Your task to perform on an android device: set an alarm Image 0: 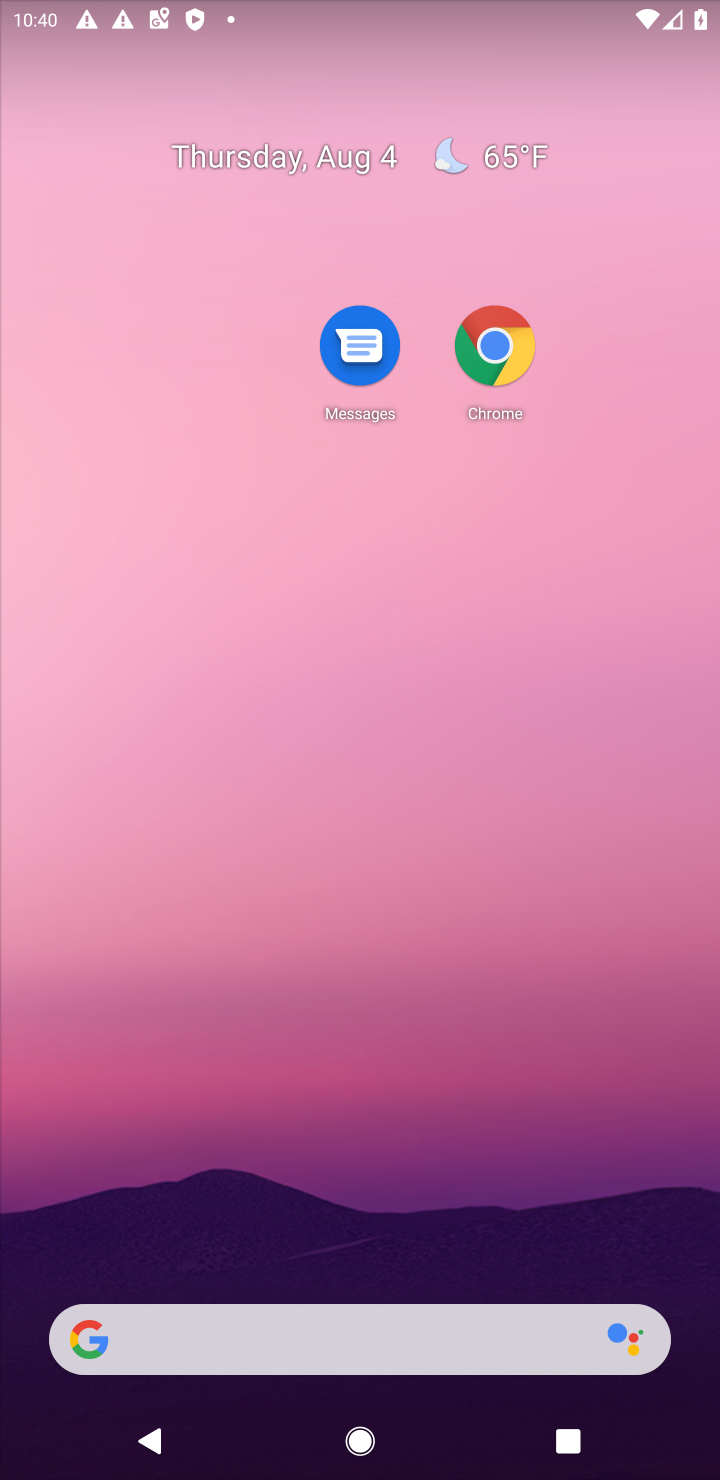
Step 0: drag from (241, 1078) to (458, 191)
Your task to perform on an android device: set an alarm Image 1: 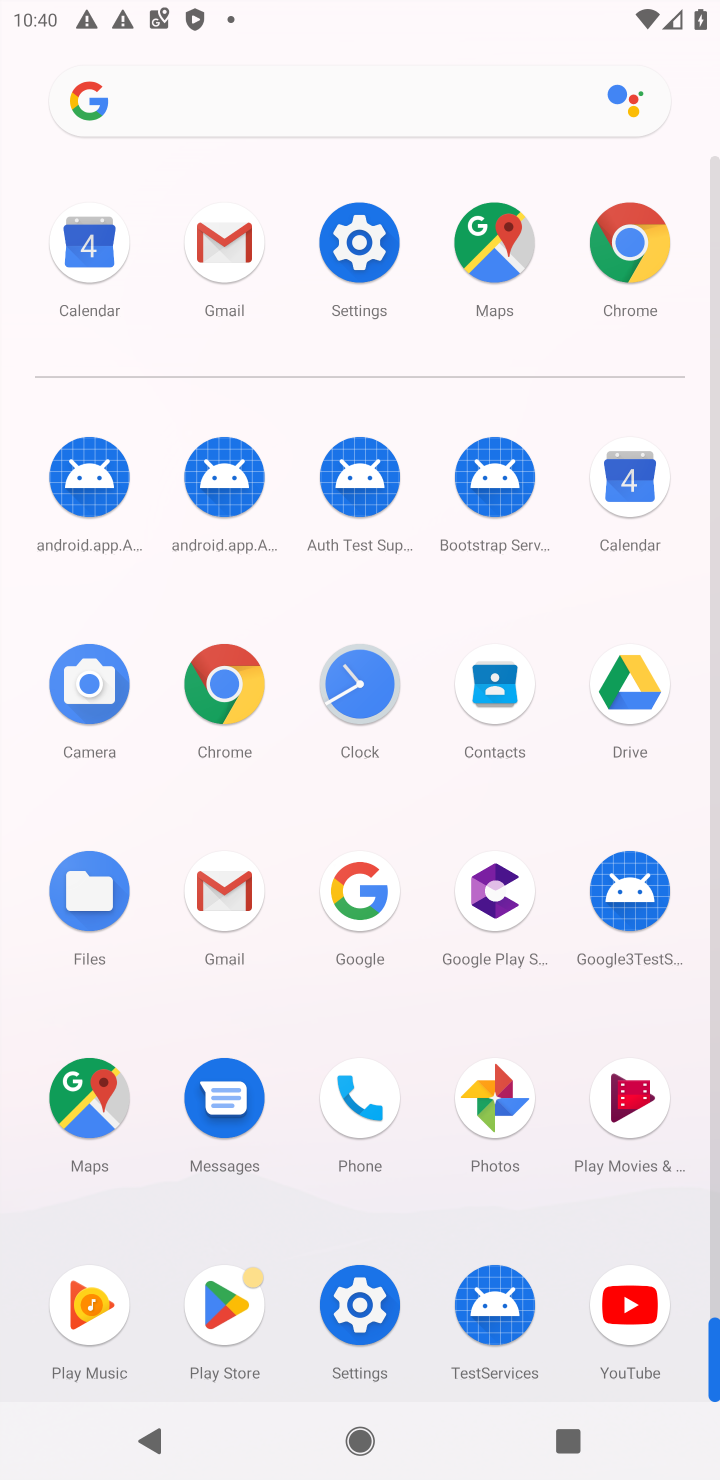
Step 1: click (374, 691)
Your task to perform on an android device: set an alarm Image 2: 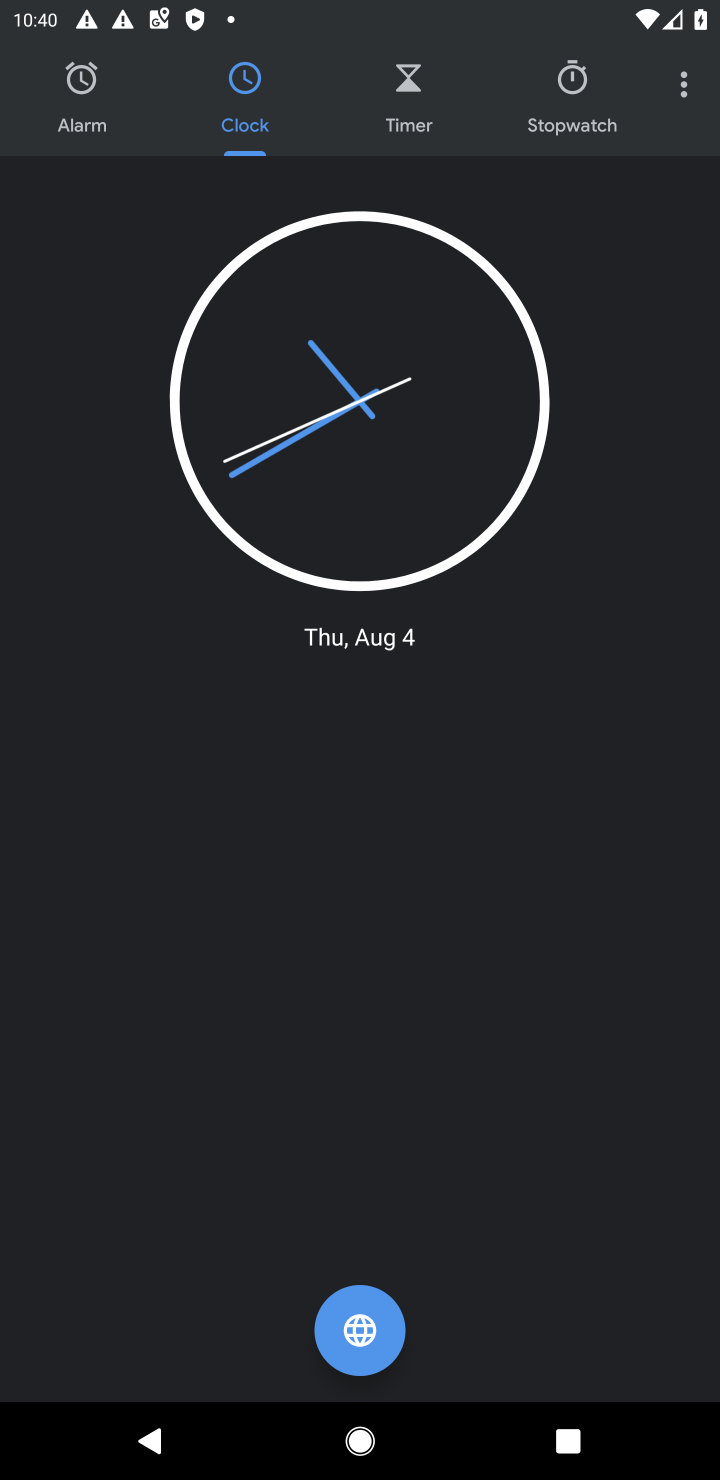
Step 2: click (68, 106)
Your task to perform on an android device: set an alarm Image 3: 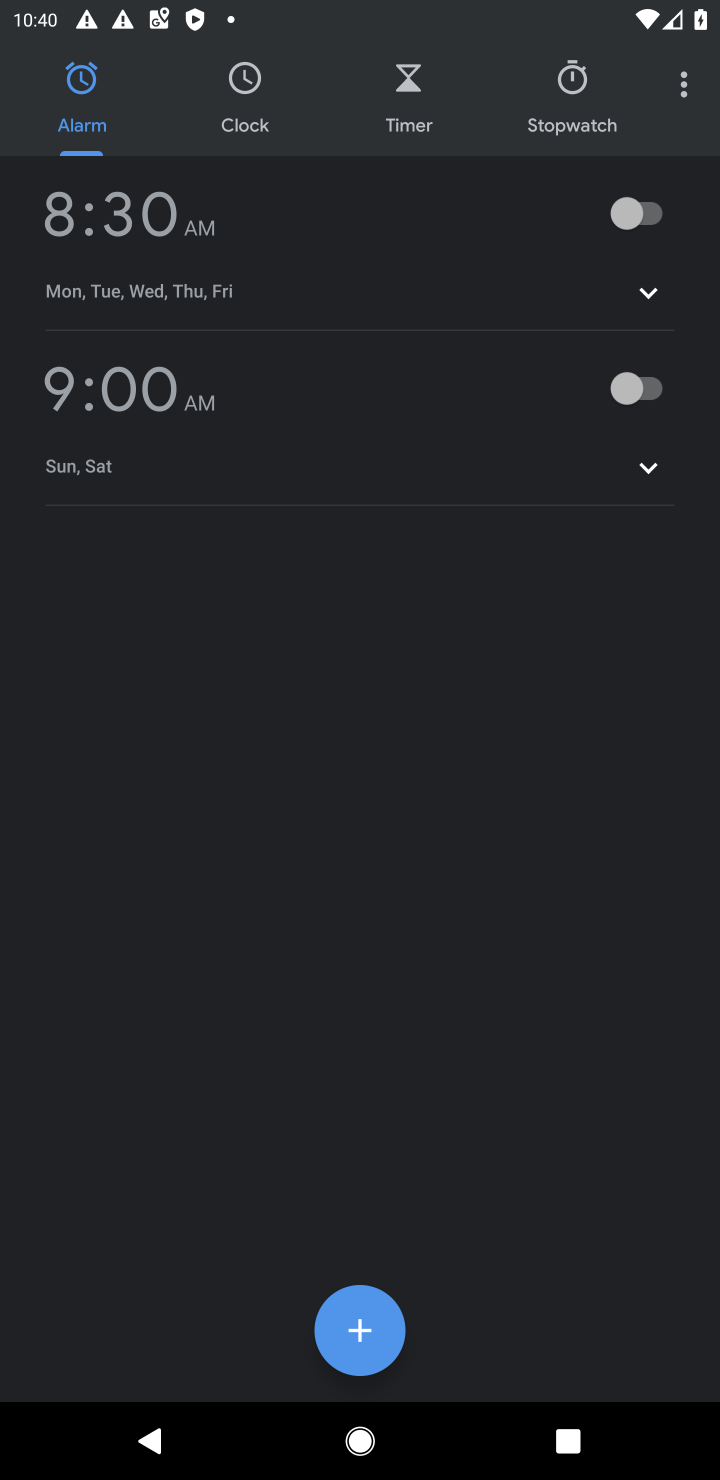
Step 3: click (631, 224)
Your task to perform on an android device: set an alarm Image 4: 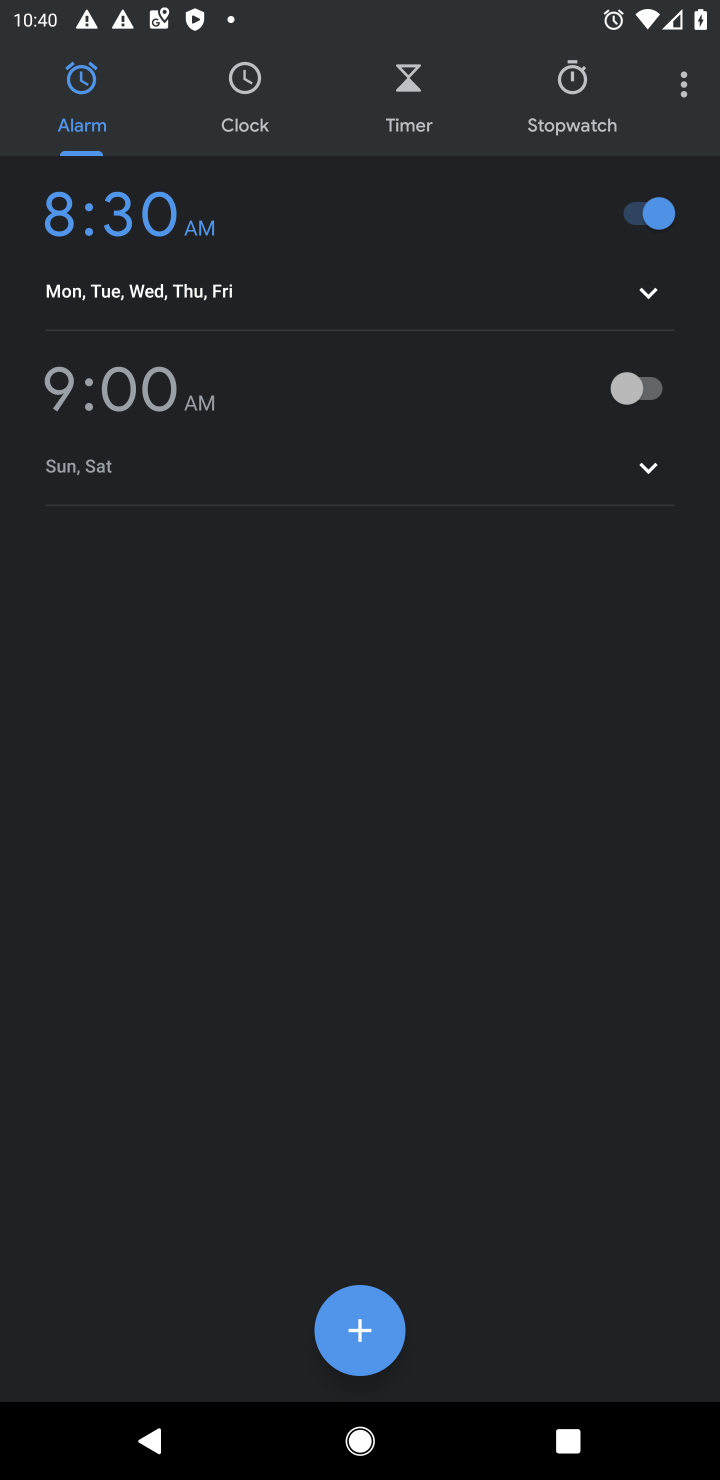
Step 4: task complete